Your task to perform on an android device: open app "Firefox Browser" Image 0: 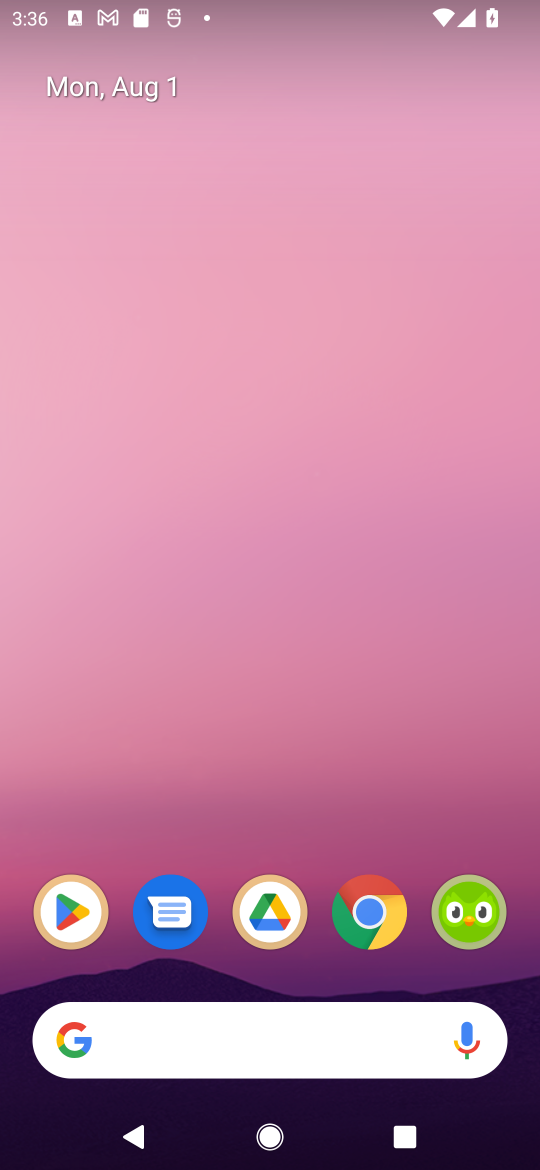
Step 0: click (68, 903)
Your task to perform on an android device: open app "Firefox Browser" Image 1: 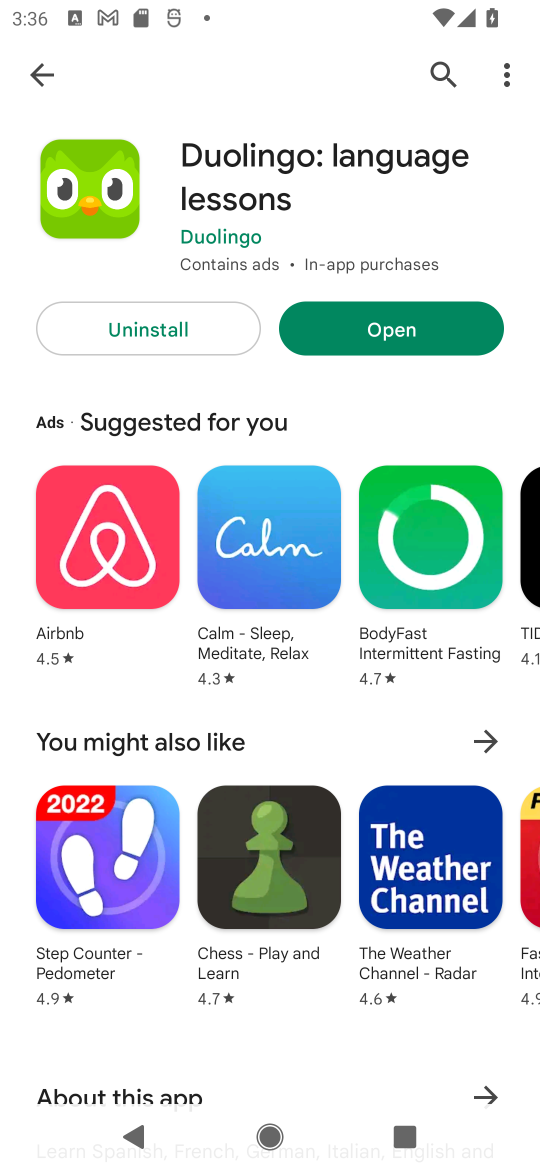
Step 1: click (455, 71)
Your task to perform on an android device: open app "Firefox Browser" Image 2: 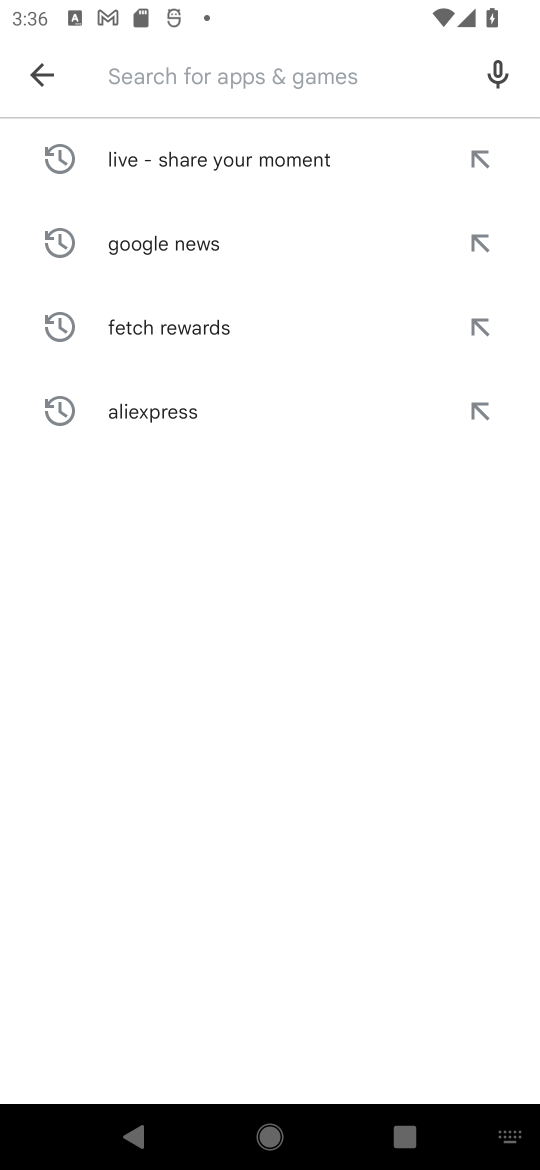
Step 2: click (234, 76)
Your task to perform on an android device: open app "Firefox Browser" Image 3: 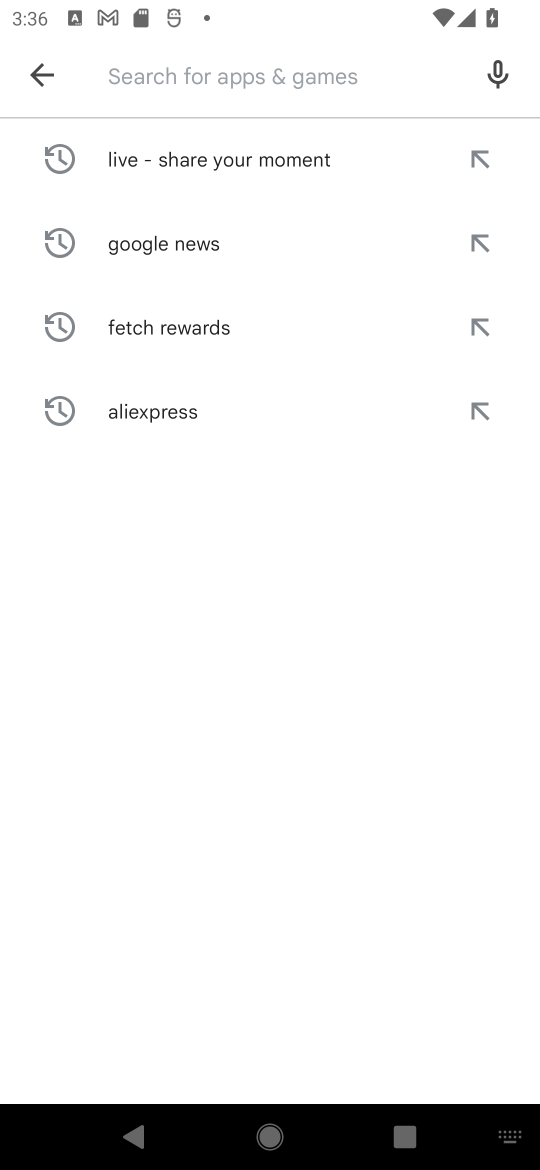
Step 3: type "Firefox Browser"
Your task to perform on an android device: open app "Firefox Browser" Image 4: 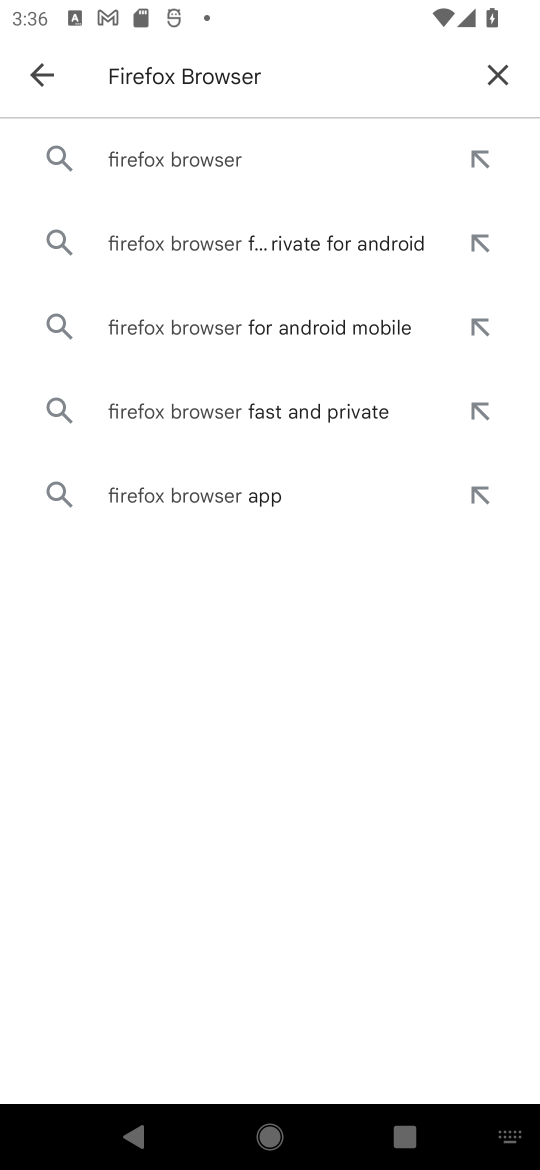
Step 4: click (198, 166)
Your task to perform on an android device: open app "Firefox Browser" Image 5: 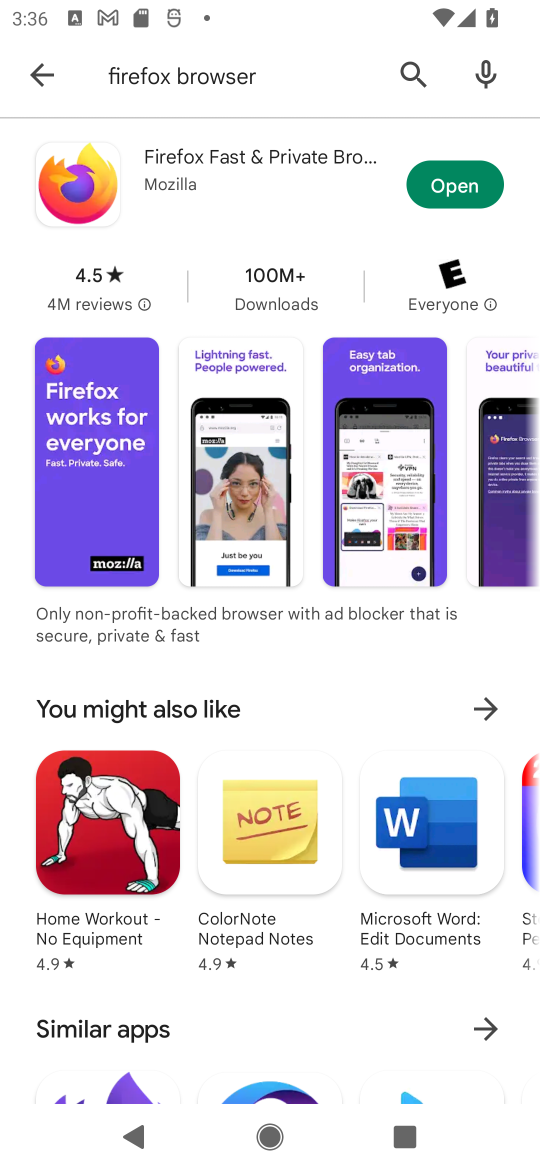
Step 5: click (416, 184)
Your task to perform on an android device: open app "Firefox Browser" Image 6: 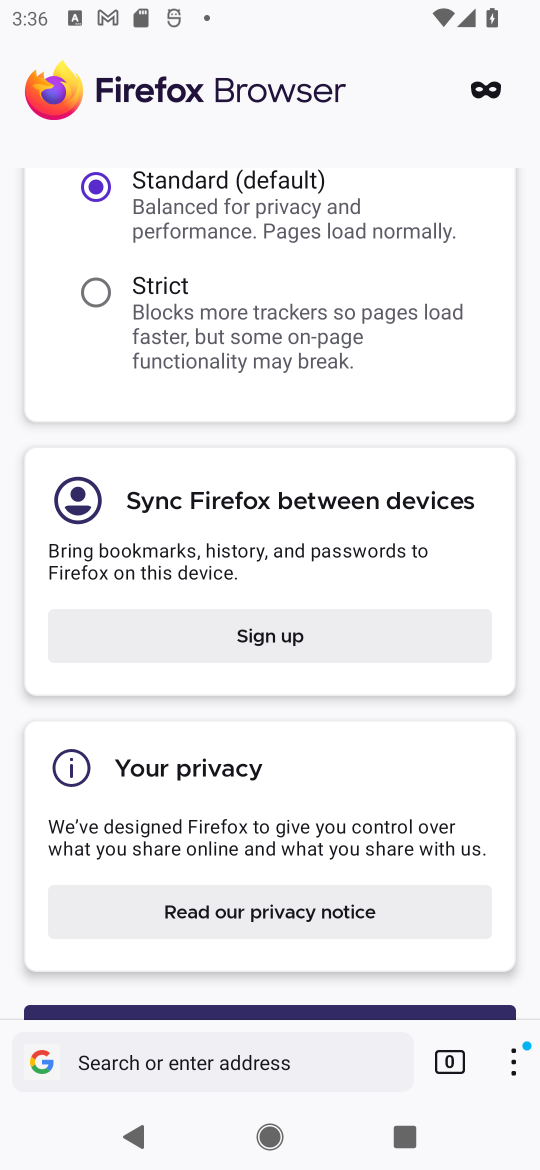
Step 6: task complete